Your task to perform on an android device: Turn off the flashlight Image 0: 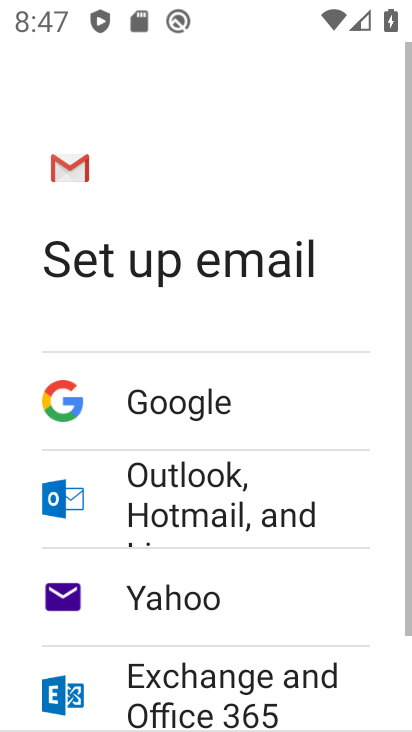
Step 0: press home button
Your task to perform on an android device: Turn off the flashlight Image 1: 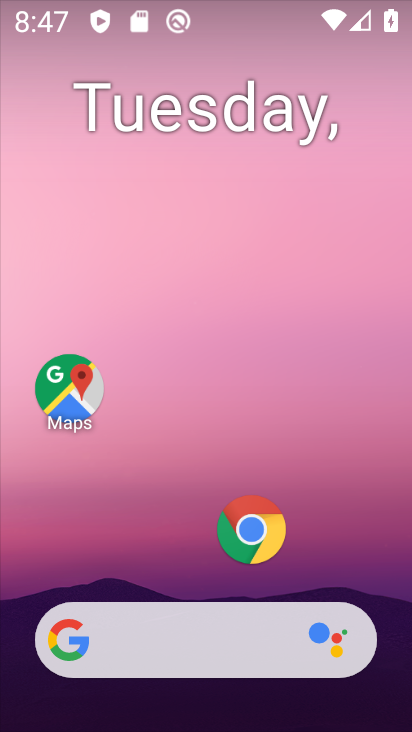
Step 1: press home button
Your task to perform on an android device: Turn off the flashlight Image 2: 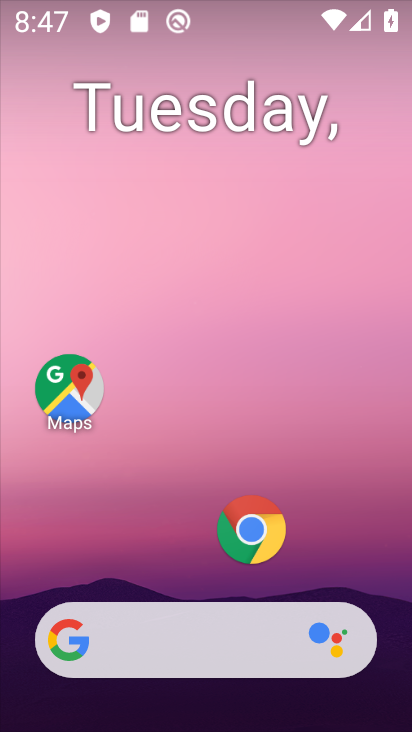
Step 2: drag from (189, 571) to (231, 59)
Your task to perform on an android device: Turn off the flashlight Image 3: 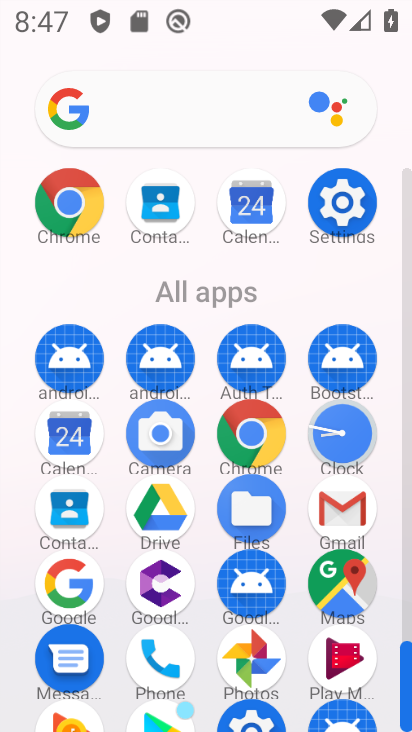
Step 3: click (359, 189)
Your task to perform on an android device: Turn off the flashlight Image 4: 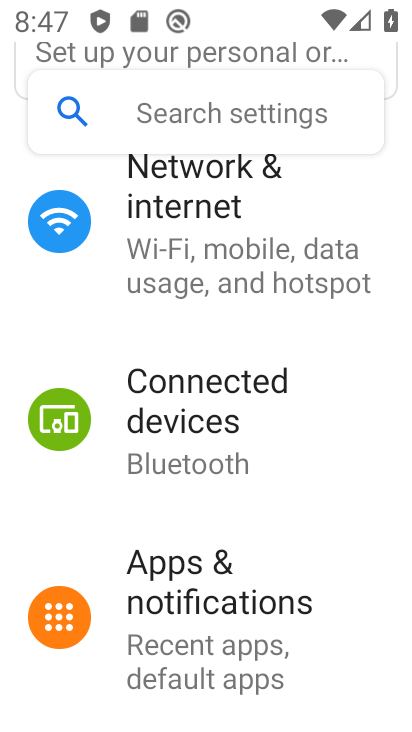
Step 4: click (171, 111)
Your task to perform on an android device: Turn off the flashlight Image 5: 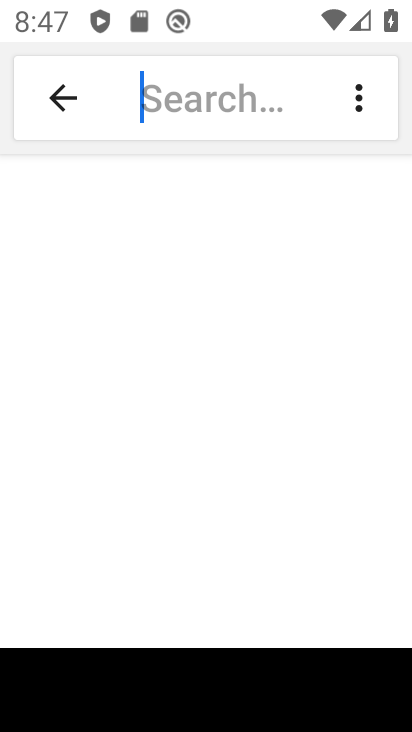
Step 5: type "flashlight"
Your task to perform on an android device: Turn off the flashlight Image 6: 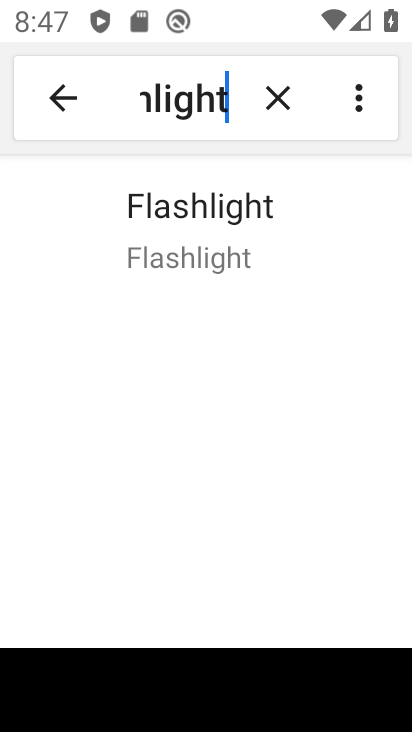
Step 6: click (179, 212)
Your task to perform on an android device: Turn off the flashlight Image 7: 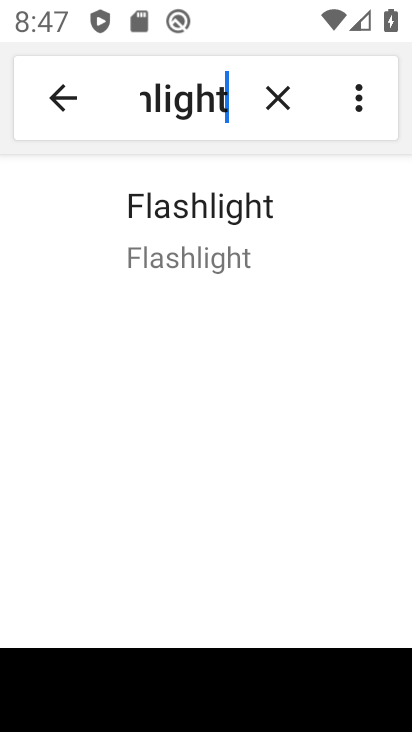
Step 7: click (180, 219)
Your task to perform on an android device: Turn off the flashlight Image 8: 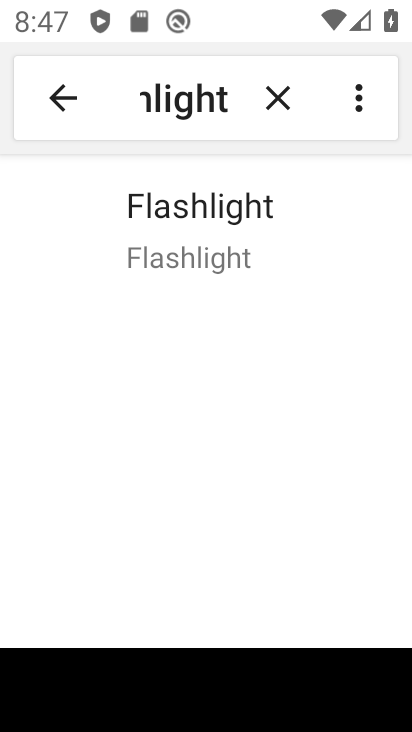
Step 8: task complete